Your task to perform on an android device: turn off notifications settings in the gmail app Image 0: 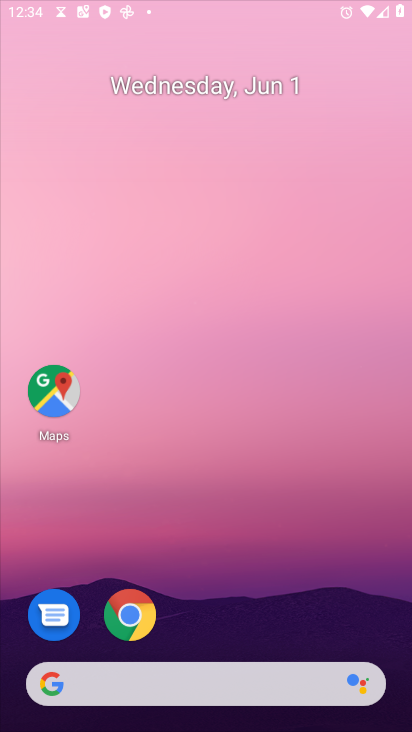
Step 0: click (342, 30)
Your task to perform on an android device: turn off notifications settings in the gmail app Image 1: 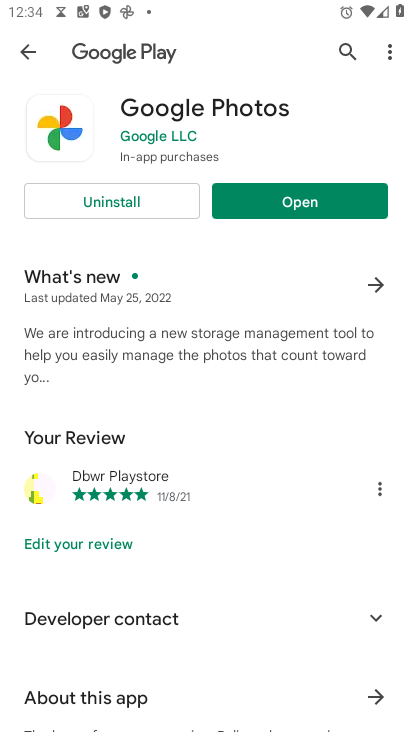
Step 1: press home button
Your task to perform on an android device: turn off notifications settings in the gmail app Image 2: 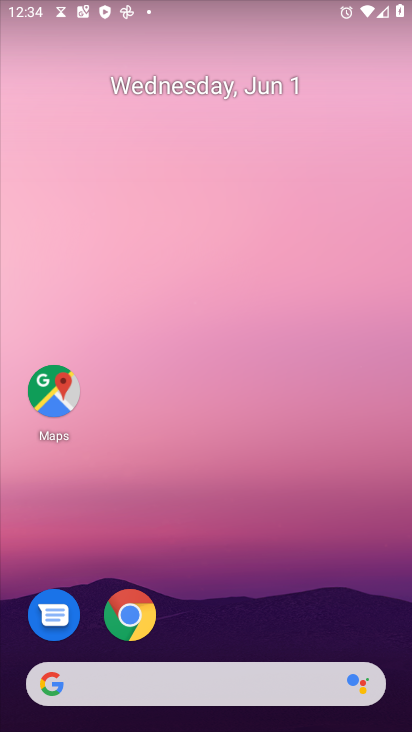
Step 2: drag from (266, 529) to (293, 128)
Your task to perform on an android device: turn off notifications settings in the gmail app Image 3: 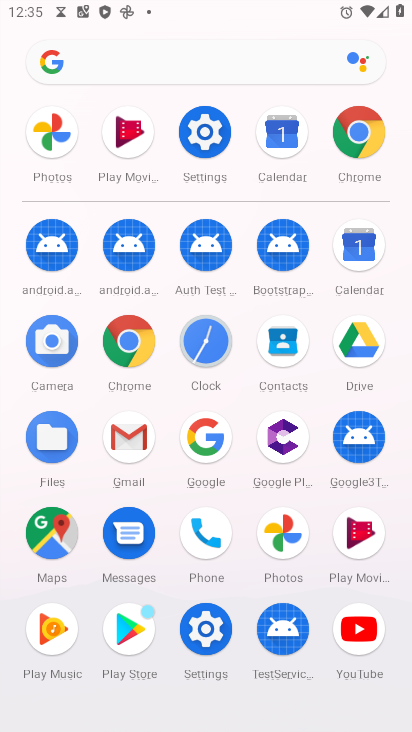
Step 3: click (144, 441)
Your task to perform on an android device: turn off notifications settings in the gmail app Image 4: 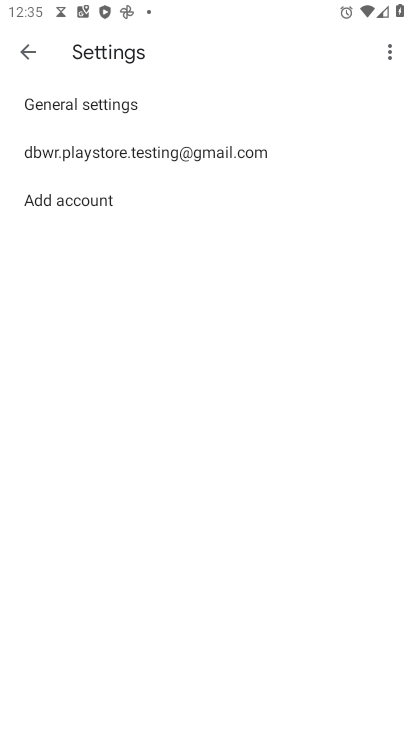
Step 4: click (18, 52)
Your task to perform on an android device: turn off notifications settings in the gmail app Image 5: 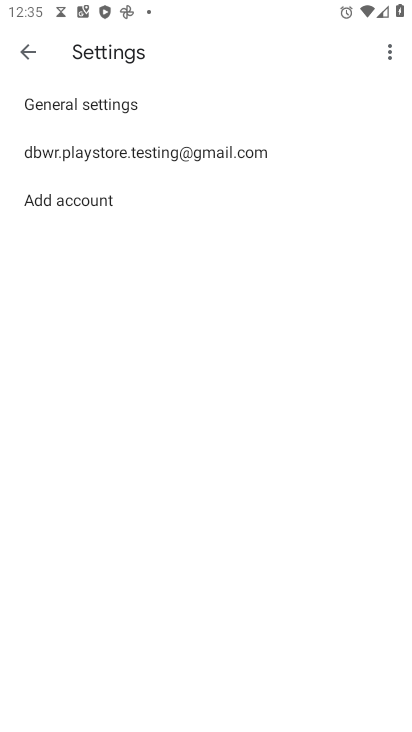
Step 5: click (25, 60)
Your task to perform on an android device: turn off notifications settings in the gmail app Image 6: 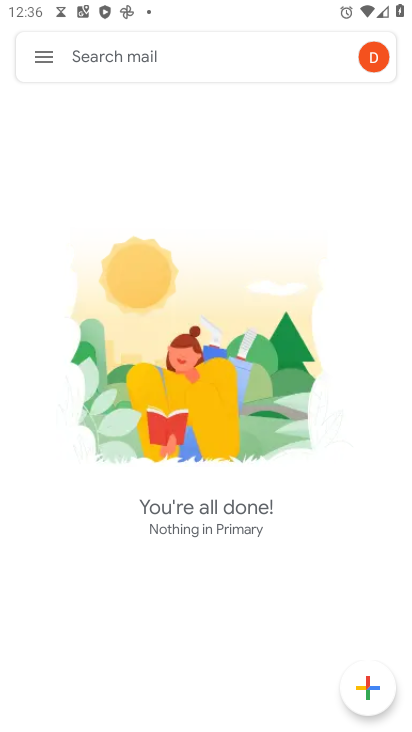
Step 6: click (28, 64)
Your task to perform on an android device: turn off notifications settings in the gmail app Image 7: 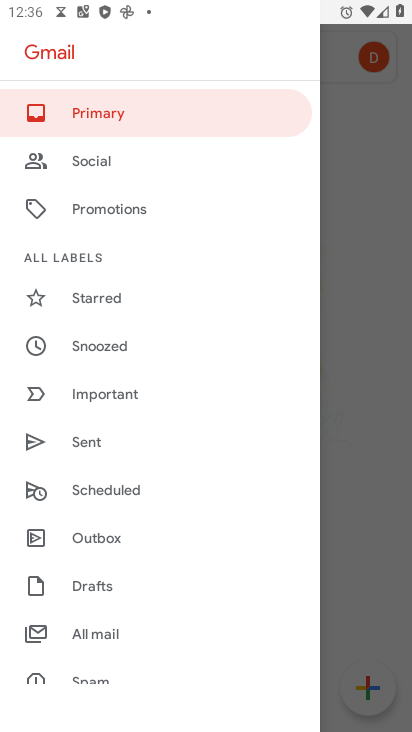
Step 7: drag from (141, 601) to (124, 157)
Your task to perform on an android device: turn off notifications settings in the gmail app Image 8: 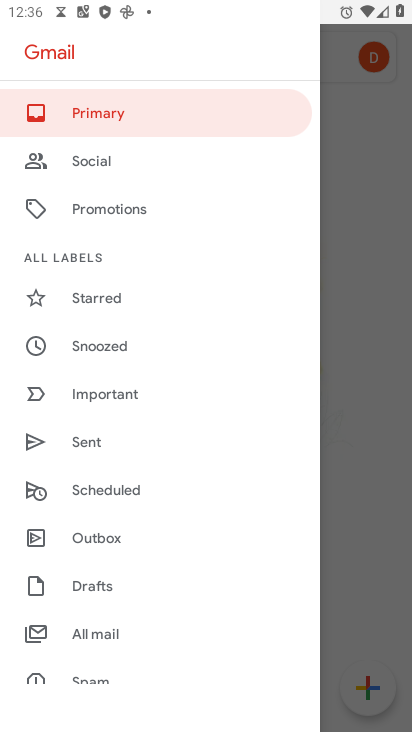
Step 8: drag from (146, 618) to (187, 208)
Your task to perform on an android device: turn off notifications settings in the gmail app Image 9: 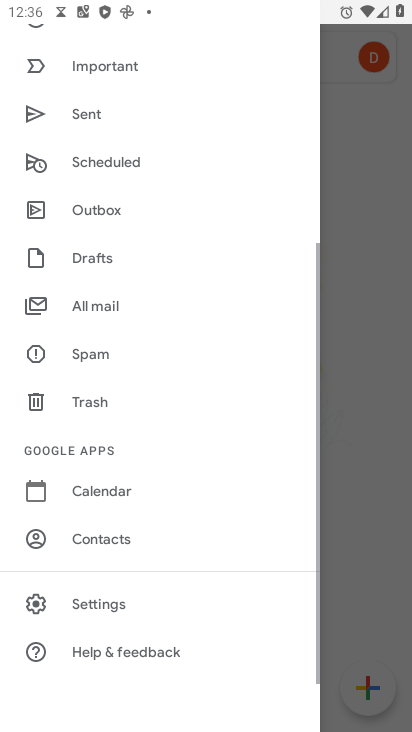
Step 9: click (95, 617)
Your task to perform on an android device: turn off notifications settings in the gmail app Image 10: 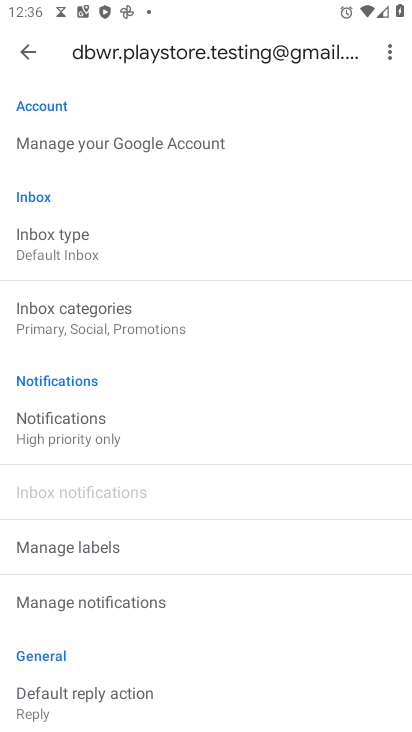
Step 10: click (97, 428)
Your task to perform on an android device: turn off notifications settings in the gmail app Image 11: 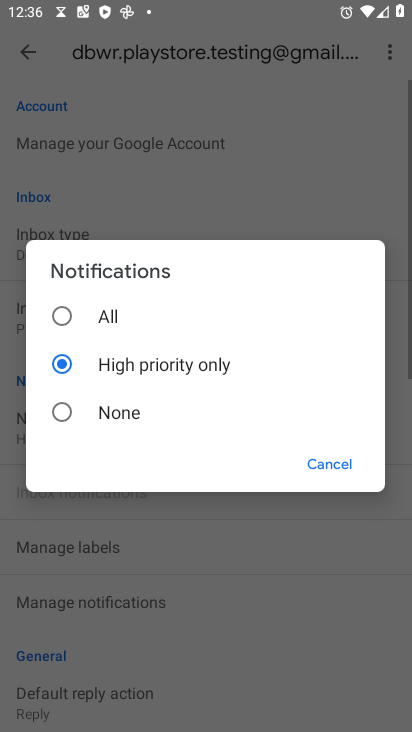
Step 11: click (101, 408)
Your task to perform on an android device: turn off notifications settings in the gmail app Image 12: 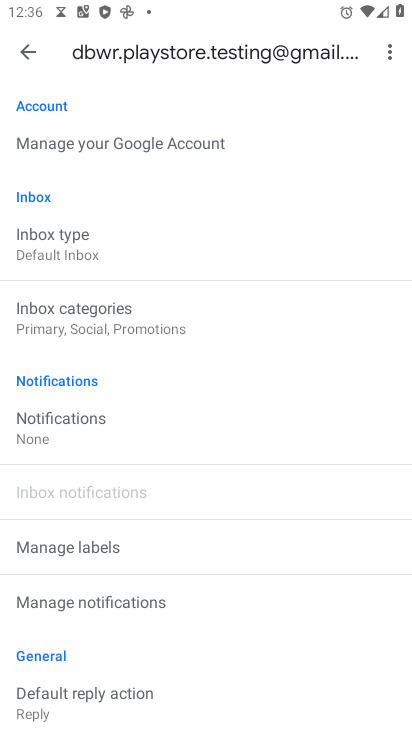
Step 12: task complete